Your task to perform on an android device: empty trash in google photos Image 0: 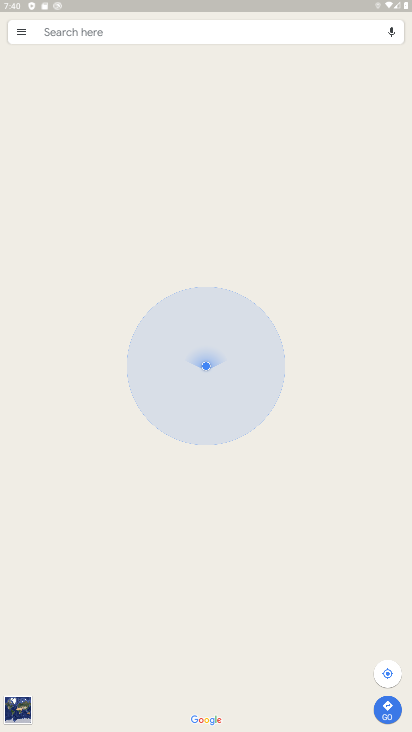
Step 0: press home button
Your task to perform on an android device: empty trash in google photos Image 1: 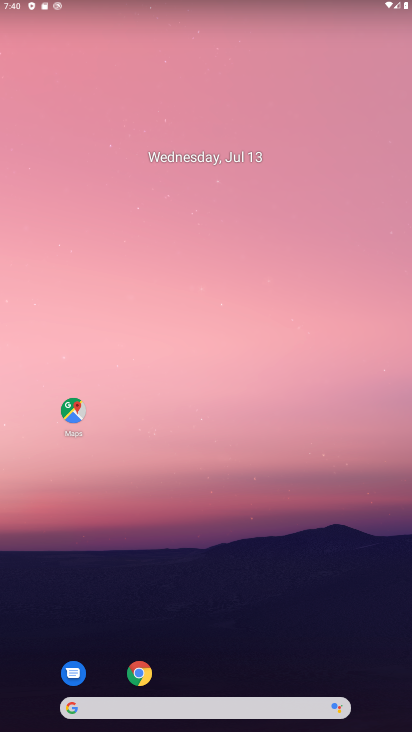
Step 1: drag from (298, 609) to (271, 122)
Your task to perform on an android device: empty trash in google photos Image 2: 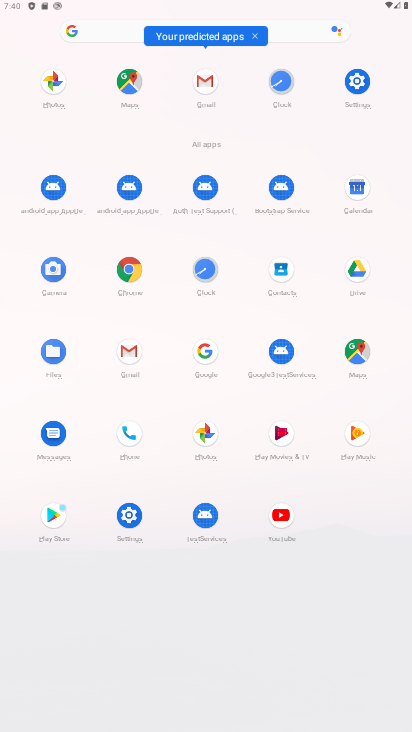
Step 2: click (210, 435)
Your task to perform on an android device: empty trash in google photos Image 3: 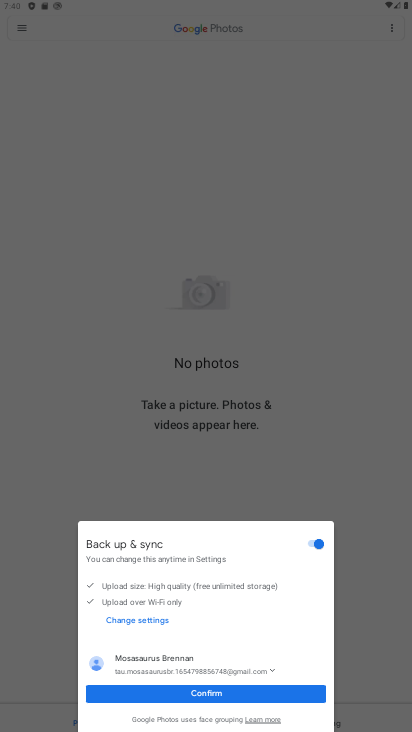
Step 3: click (244, 692)
Your task to perform on an android device: empty trash in google photos Image 4: 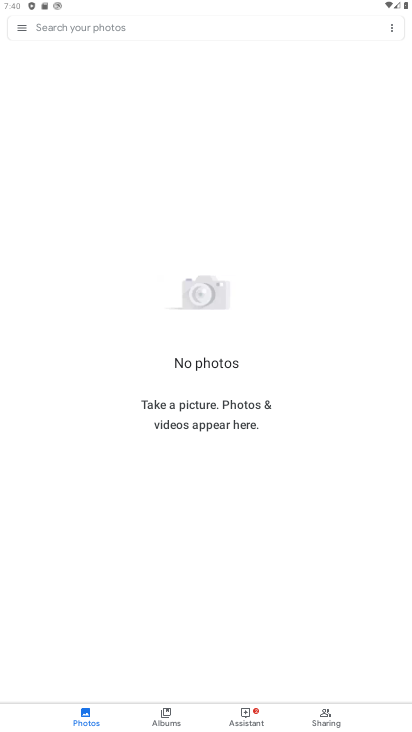
Step 4: click (21, 19)
Your task to perform on an android device: empty trash in google photos Image 5: 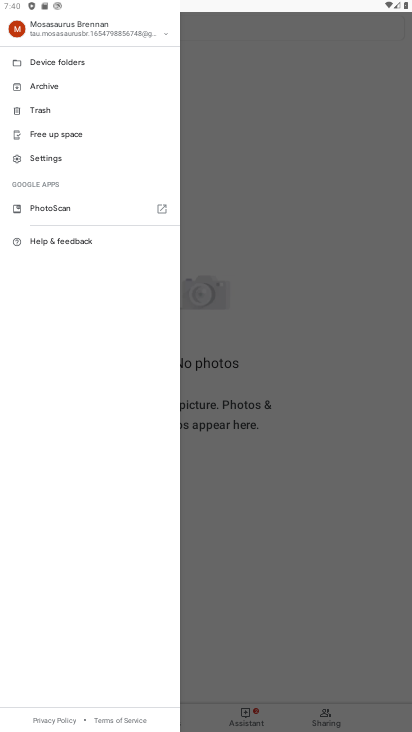
Step 5: click (41, 108)
Your task to perform on an android device: empty trash in google photos Image 6: 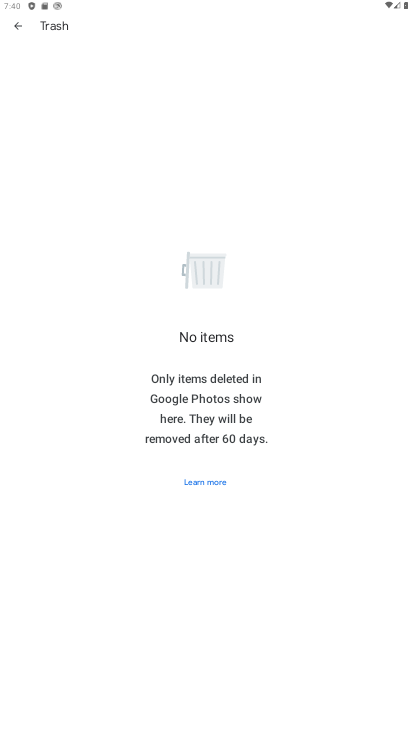
Step 6: task complete